Your task to perform on an android device: change the clock style Image 0: 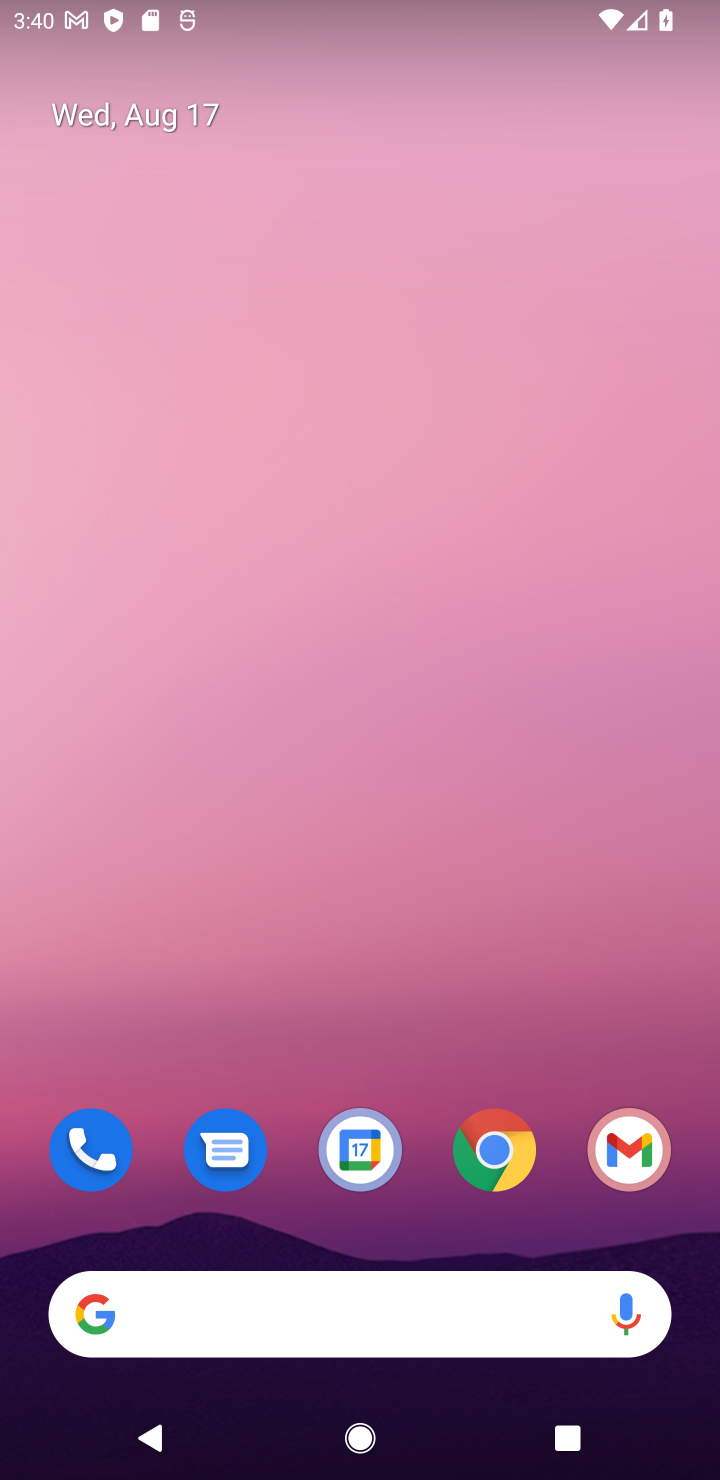
Step 0: drag from (532, 1206) to (409, 15)
Your task to perform on an android device: change the clock style Image 1: 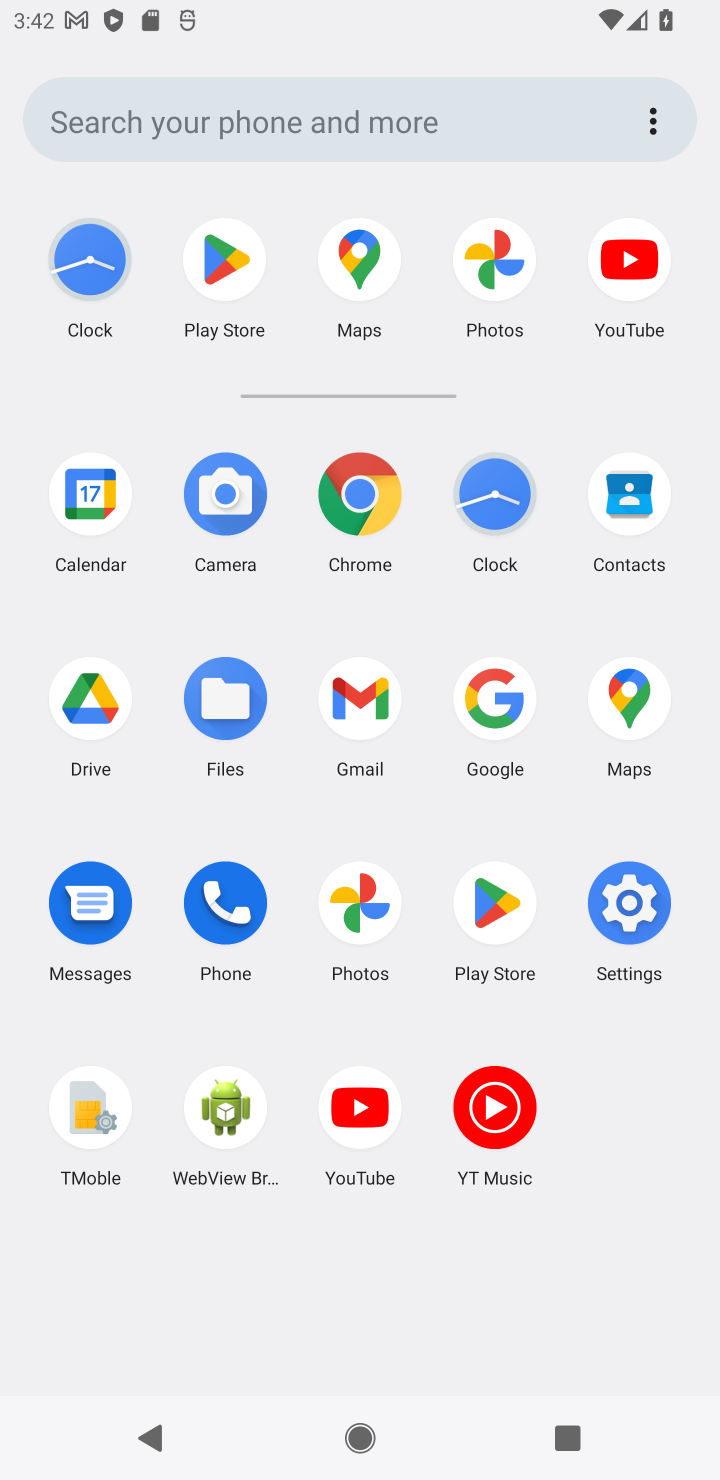
Step 1: click (480, 510)
Your task to perform on an android device: change the clock style Image 2: 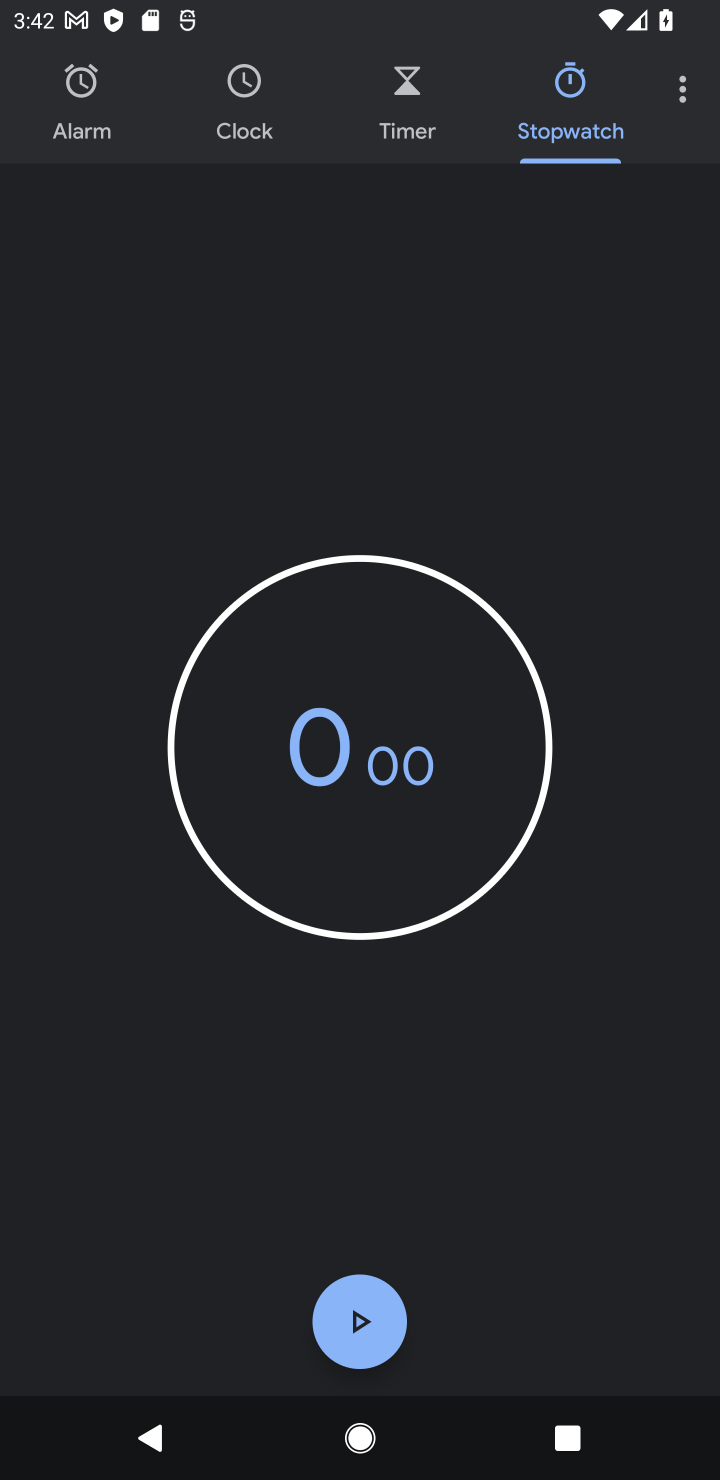
Step 2: click (672, 93)
Your task to perform on an android device: change the clock style Image 3: 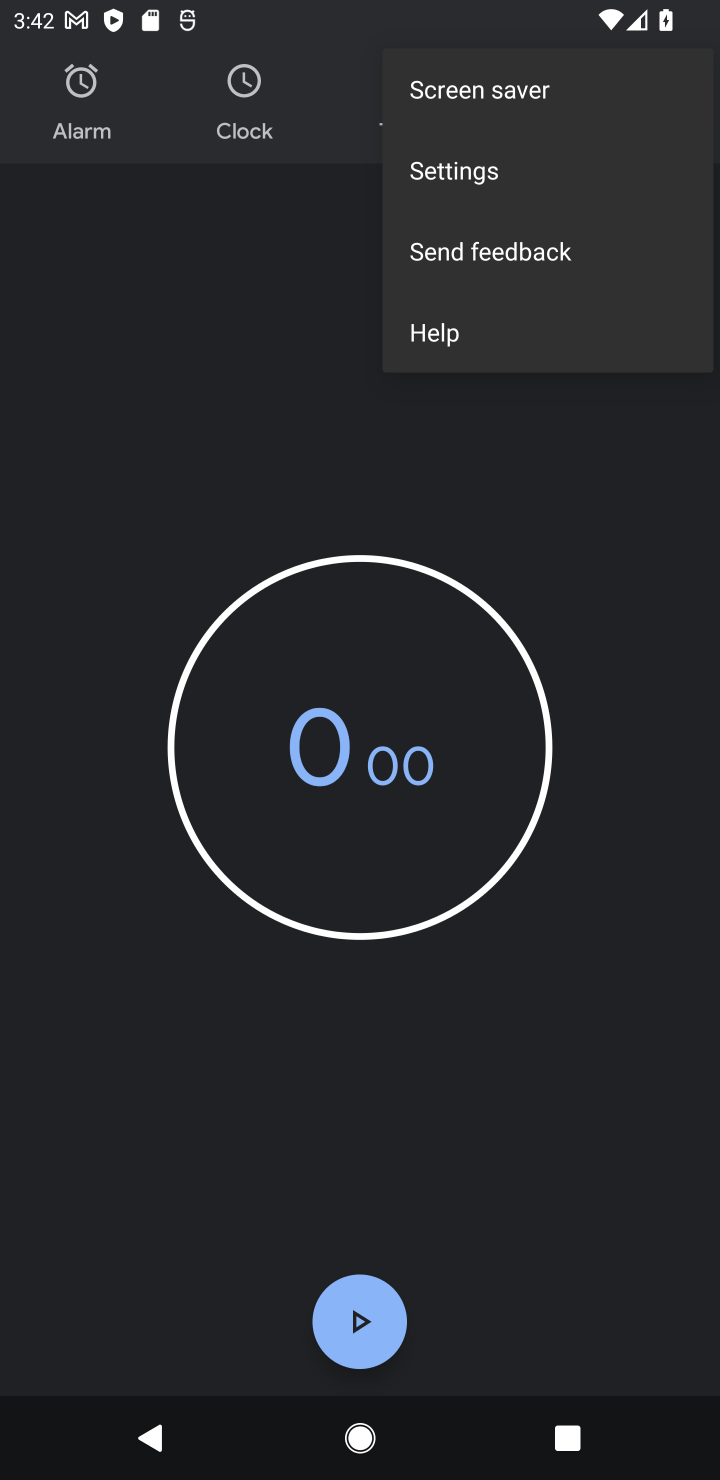
Step 3: click (441, 180)
Your task to perform on an android device: change the clock style Image 4: 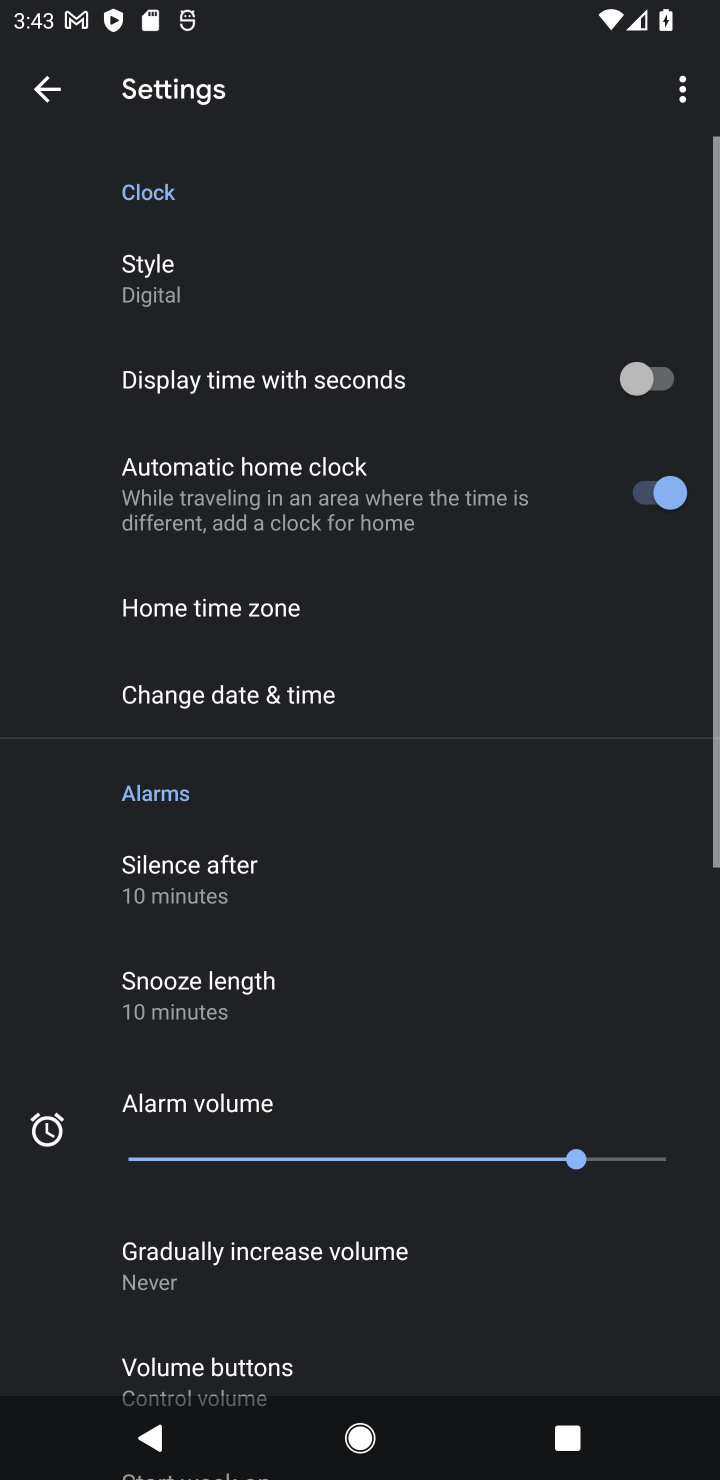
Step 4: click (126, 292)
Your task to perform on an android device: change the clock style Image 5: 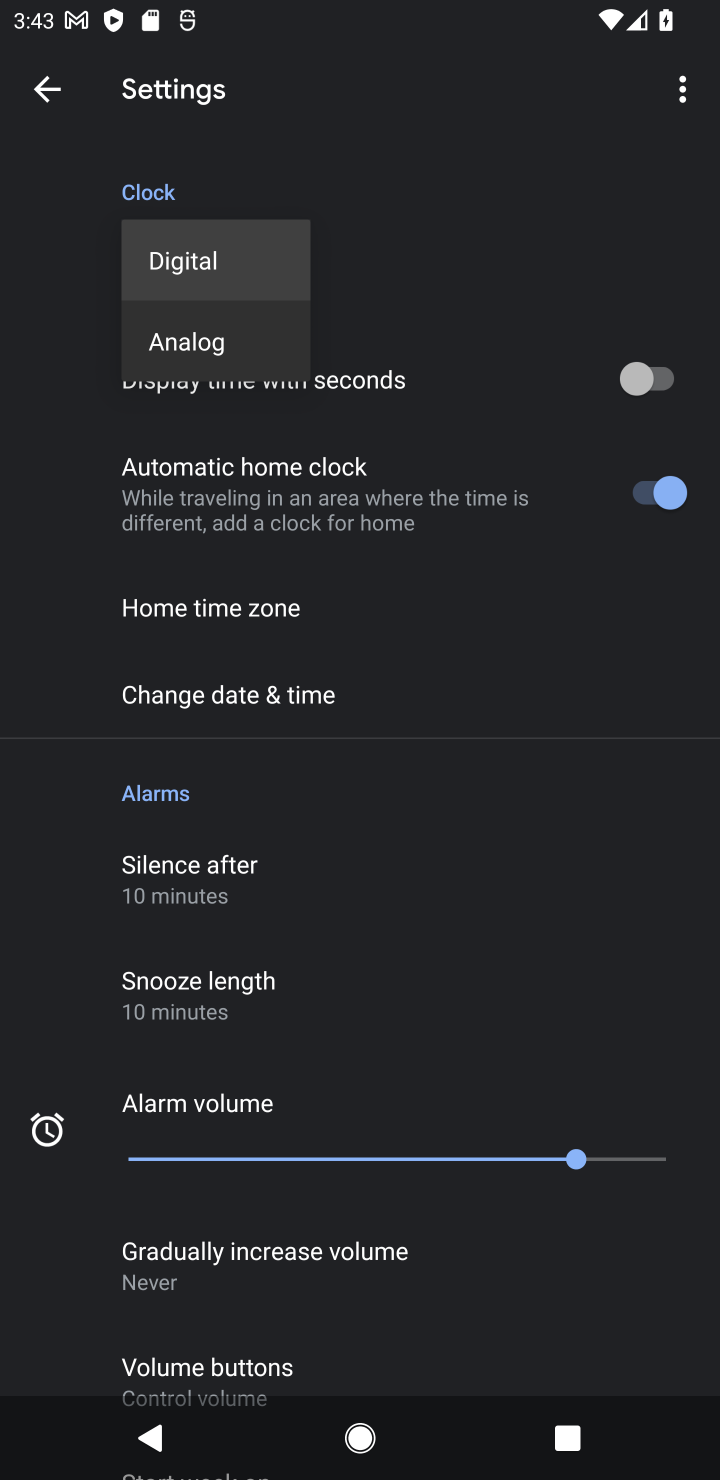
Step 5: click (211, 333)
Your task to perform on an android device: change the clock style Image 6: 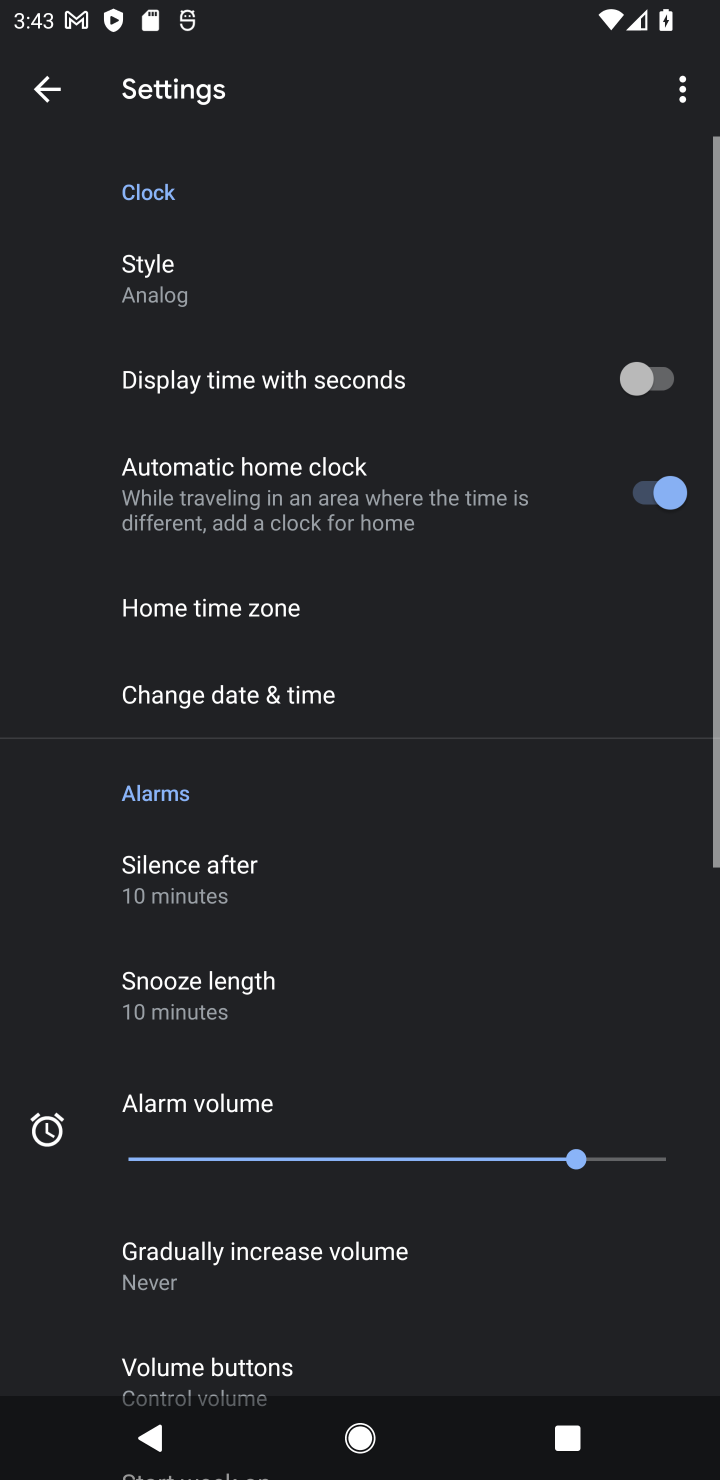
Step 6: task complete